Your task to perform on an android device: Go to settings Image 0: 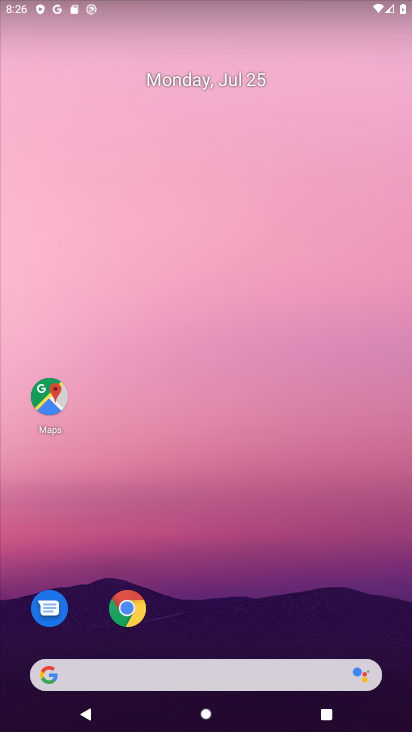
Step 0: drag from (244, 617) to (250, 359)
Your task to perform on an android device: Go to settings Image 1: 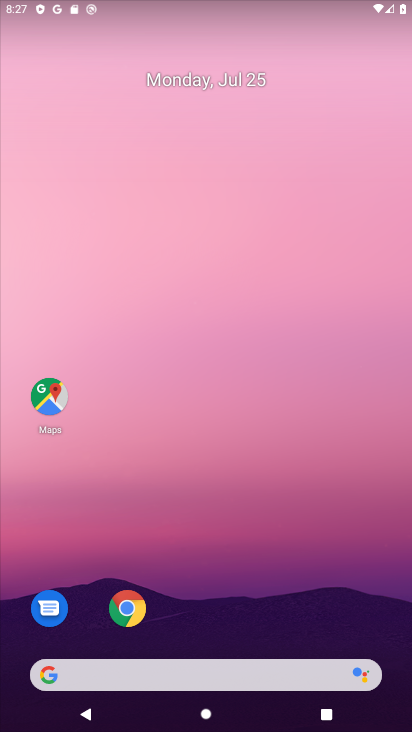
Step 1: drag from (254, 634) to (260, 147)
Your task to perform on an android device: Go to settings Image 2: 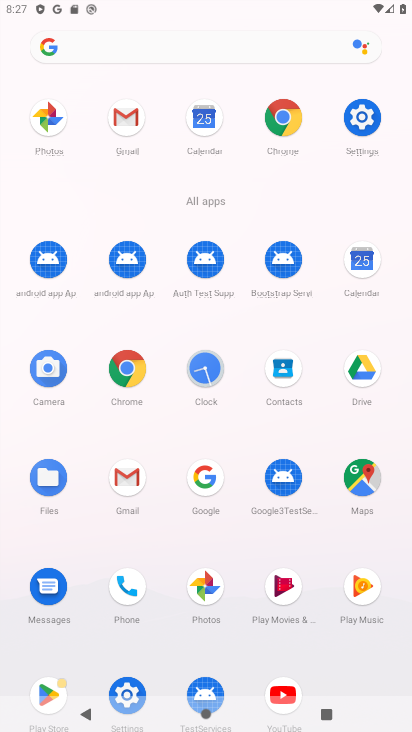
Step 2: click (355, 113)
Your task to perform on an android device: Go to settings Image 3: 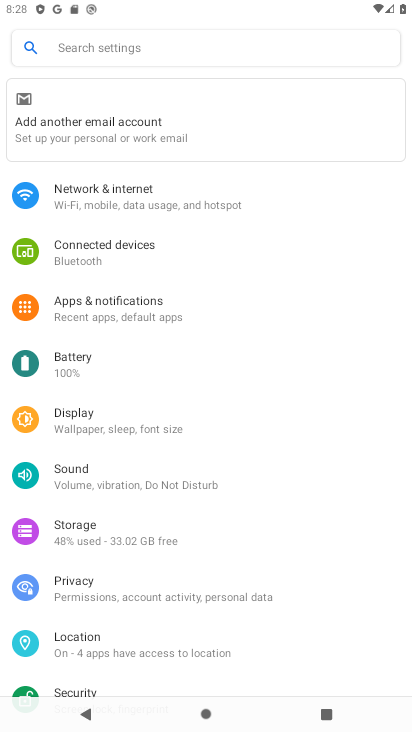
Step 3: task complete